Your task to perform on an android device: Open my contact list Image 0: 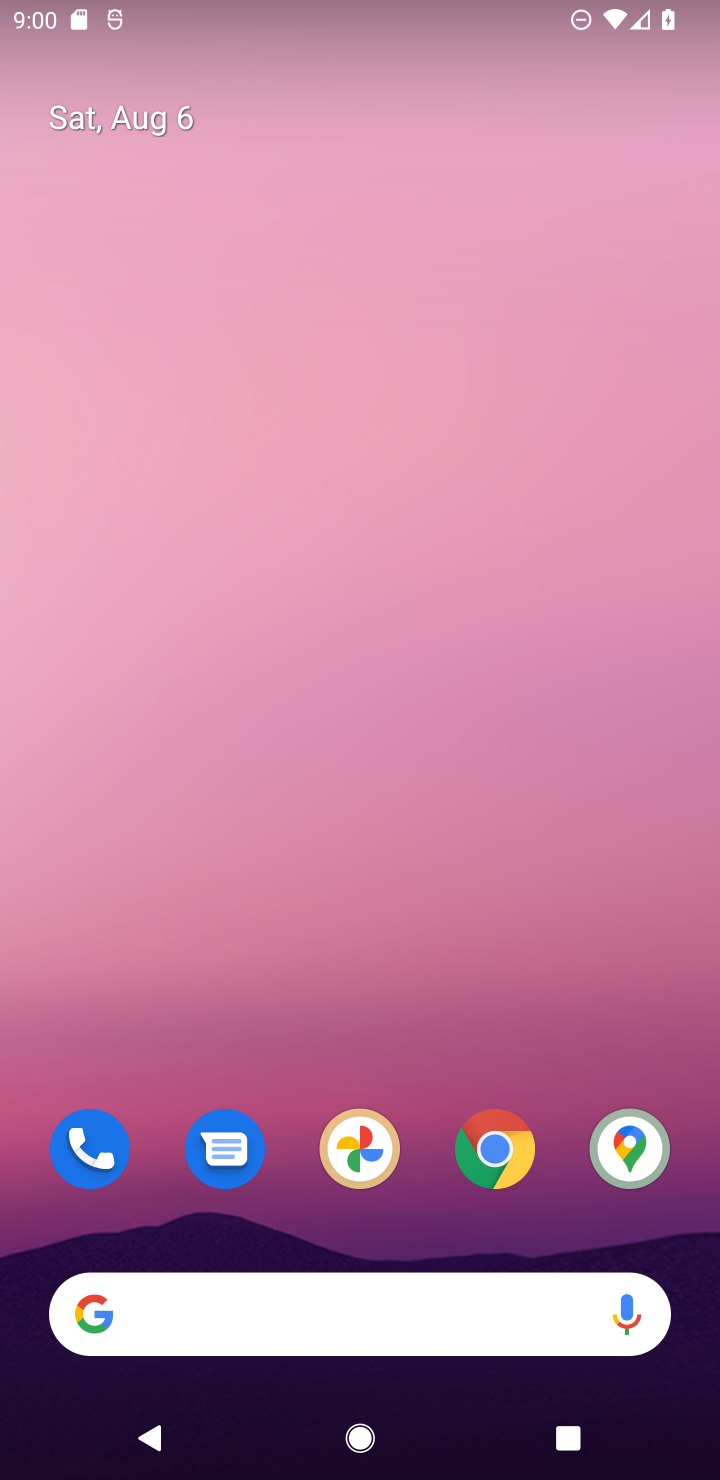
Step 0: drag from (305, 1312) to (304, 90)
Your task to perform on an android device: Open my contact list Image 1: 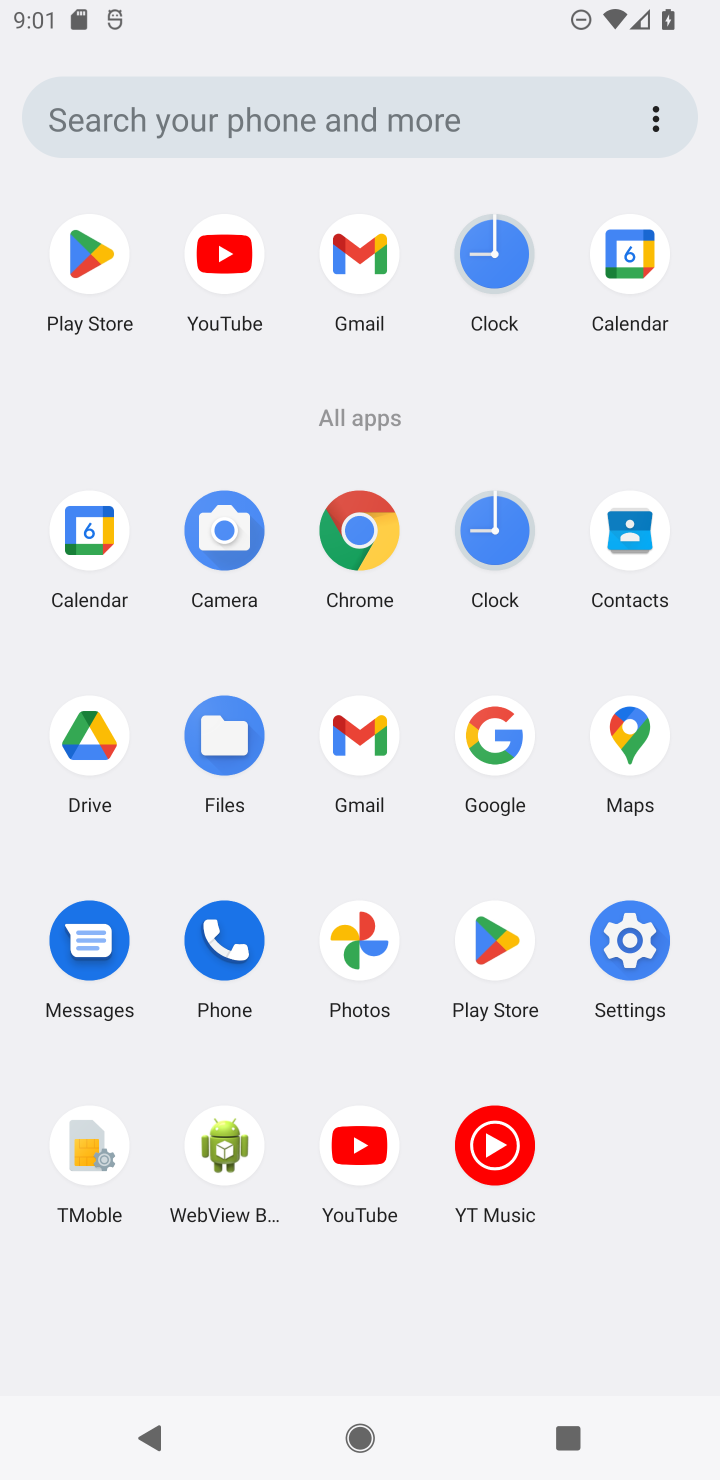
Step 1: click (623, 525)
Your task to perform on an android device: Open my contact list Image 2: 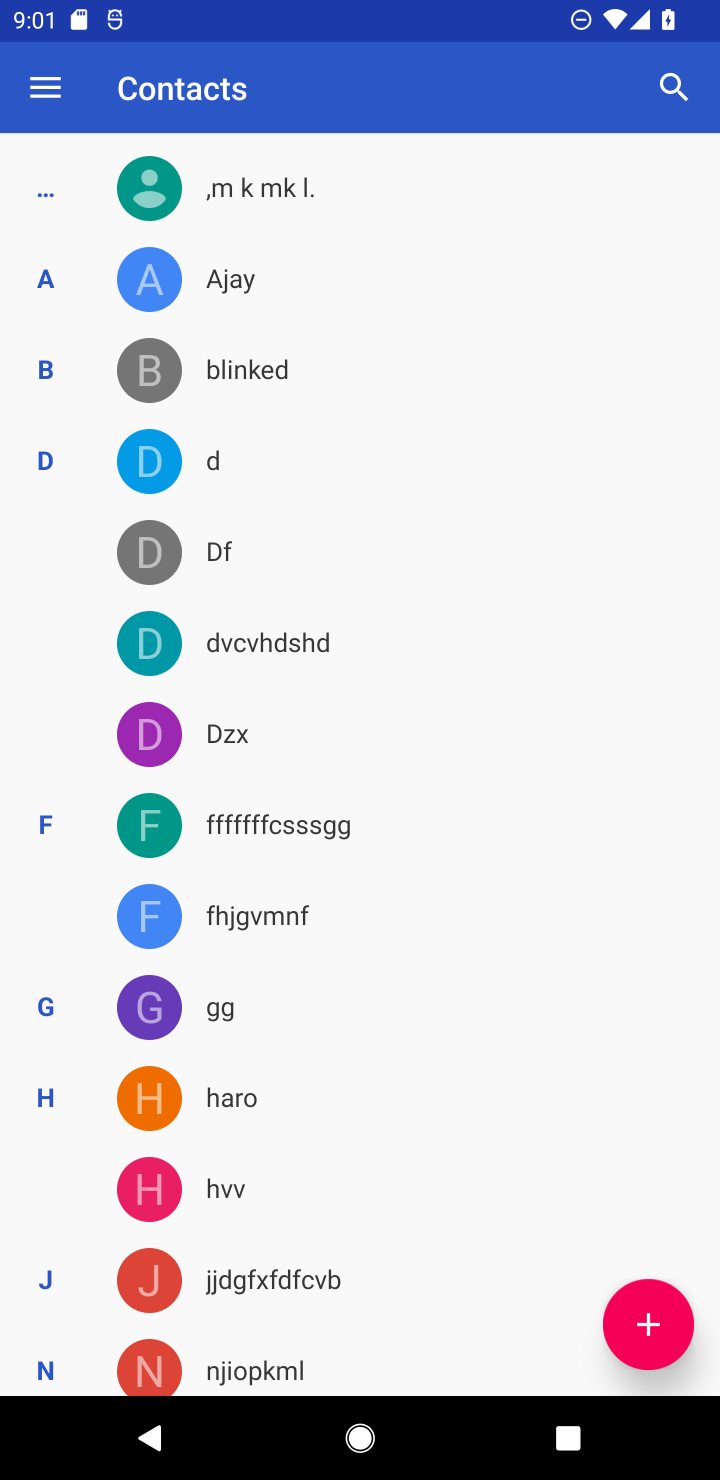
Step 2: task complete